Your task to perform on an android device: Search for sushi restaurants on Maps Image 0: 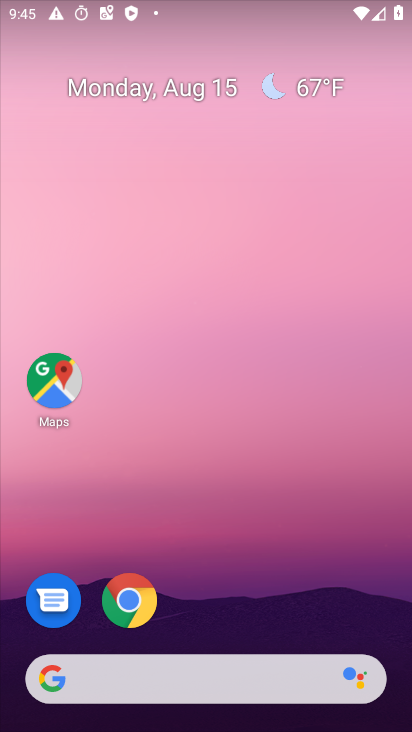
Step 0: drag from (234, 641) to (228, 53)
Your task to perform on an android device: Search for sushi restaurants on Maps Image 1: 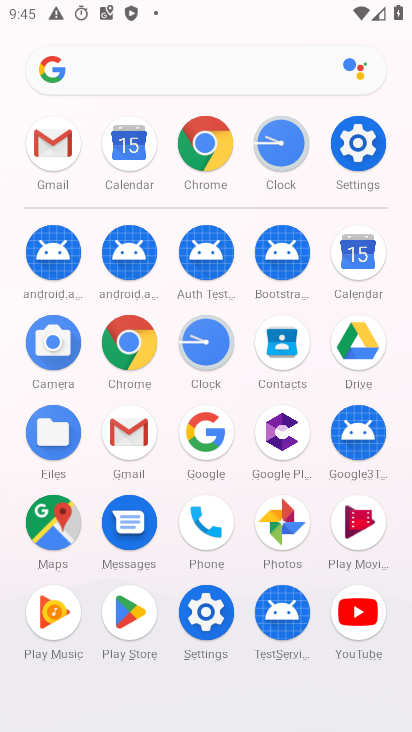
Step 1: click (55, 522)
Your task to perform on an android device: Search for sushi restaurants on Maps Image 2: 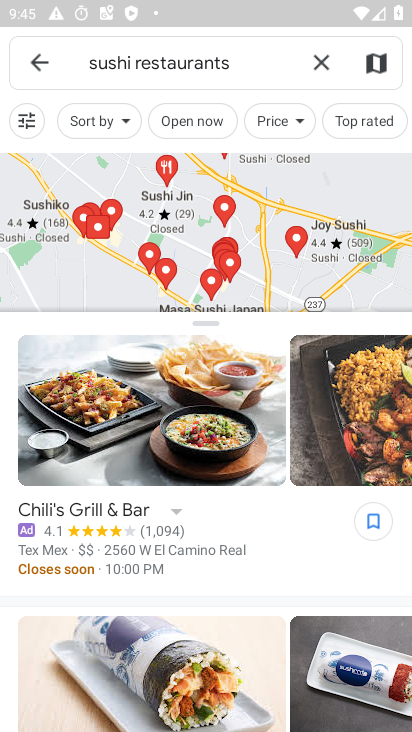
Step 2: task complete